Your task to perform on an android device: Open calendar and show me the first week of next month Image 0: 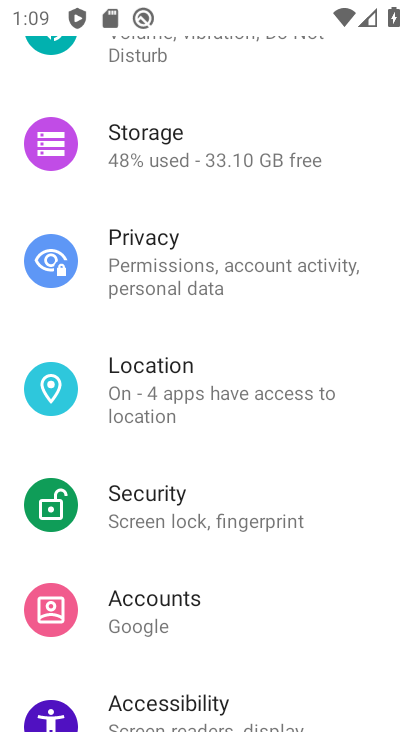
Step 0: press home button
Your task to perform on an android device: Open calendar and show me the first week of next month Image 1: 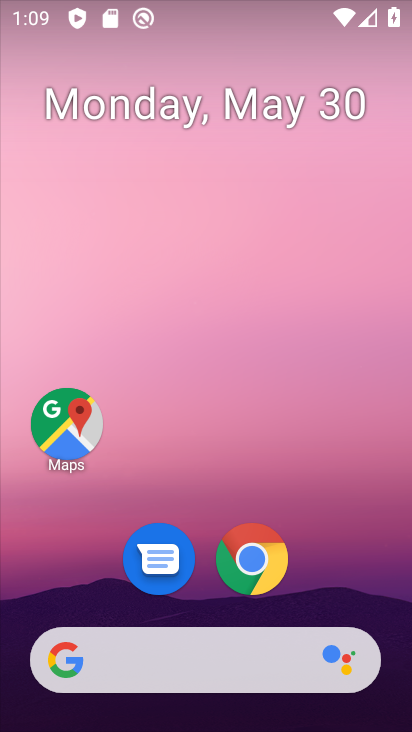
Step 1: drag from (332, 550) to (325, 27)
Your task to perform on an android device: Open calendar and show me the first week of next month Image 2: 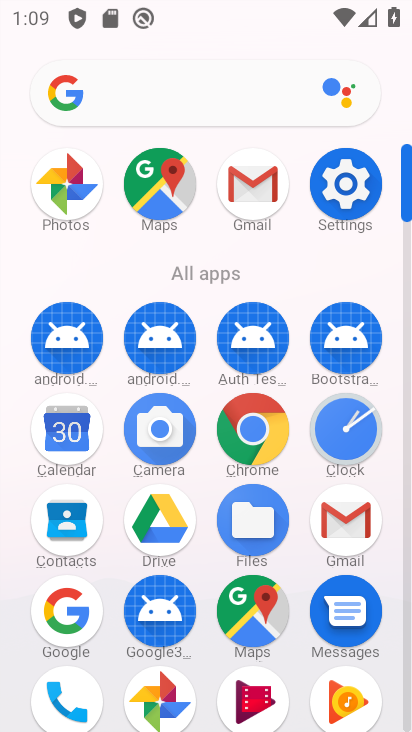
Step 2: click (74, 433)
Your task to perform on an android device: Open calendar and show me the first week of next month Image 3: 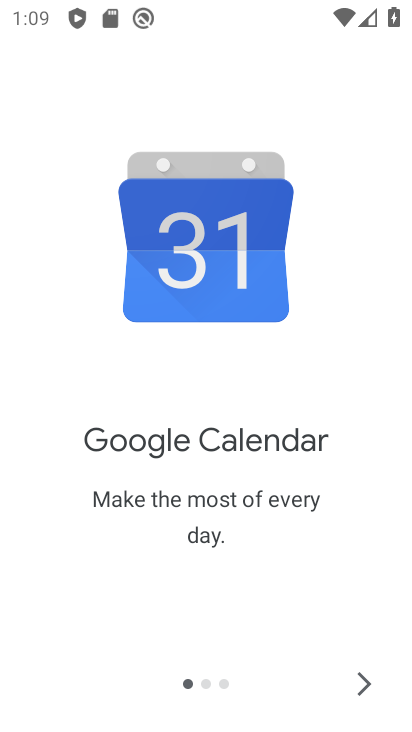
Step 3: click (357, 679)
Your task to perform on an android device: Open calendar and show me the first week of next month Image 4: 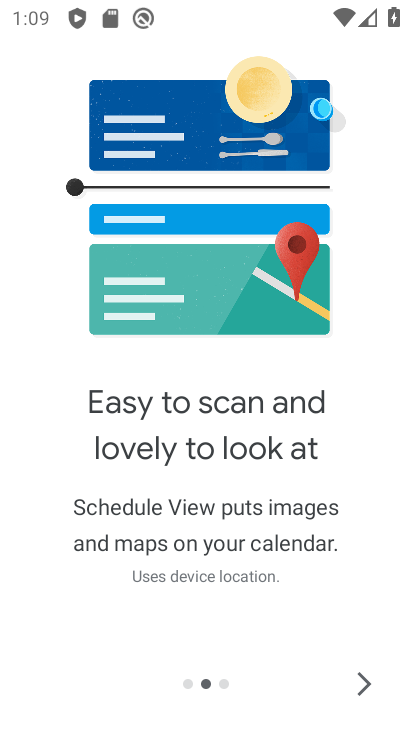
Step 4: click (357, 678)
Your task to perform on an android device: Open calendar and show me the first week of next month Image 5: 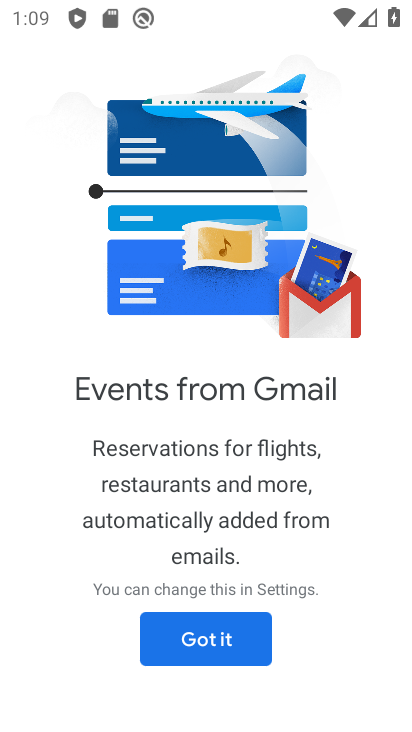
Step 5: click (237, 653)
Your task to perform on an android device: Open calendar and show me the first week of next month Image 6: 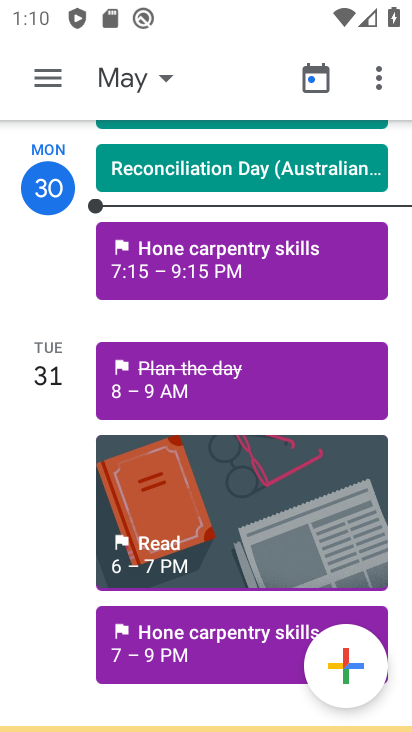
Step 6: click (141, 67)
Your task to perform on an android device: Open calendar and show me the first week of next month Image 7: 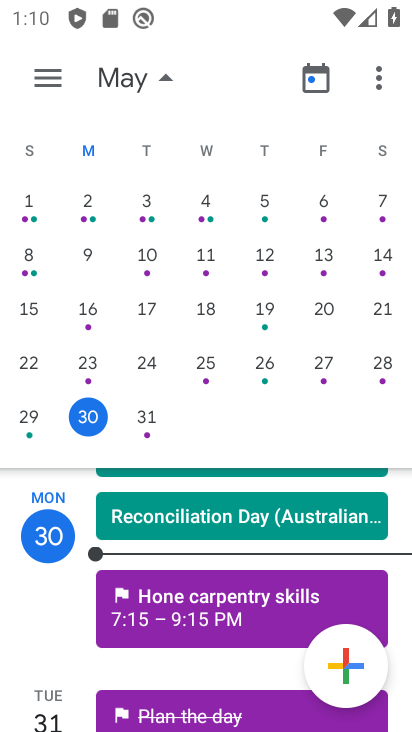
Step 7: task complete